Your task to perform on an android device: add a contact in the contacts app Image 0: 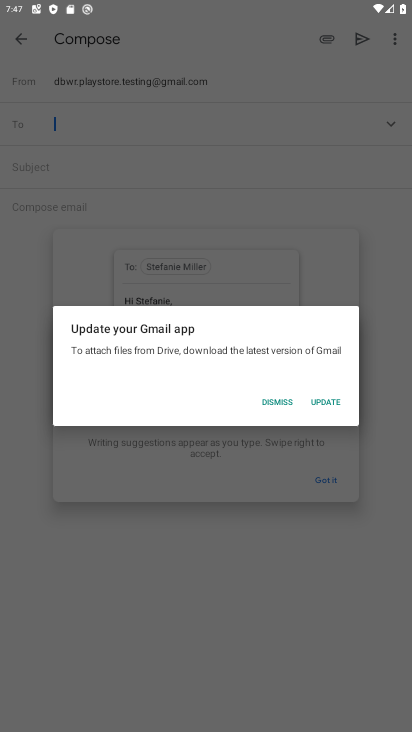
Step 0: press home button
Your task to perform on an android device: add a contact in the contacts app Image 1: 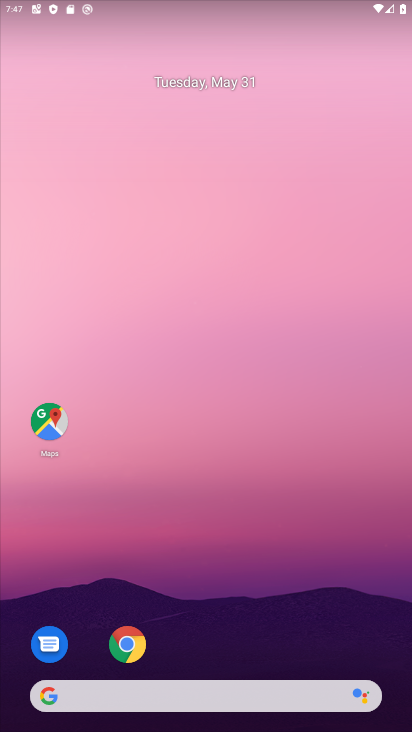
Step 1: drag from (161, 608) to (233, 16)
Your task to perform on an android device: add a contact in the contacts app Image 2: 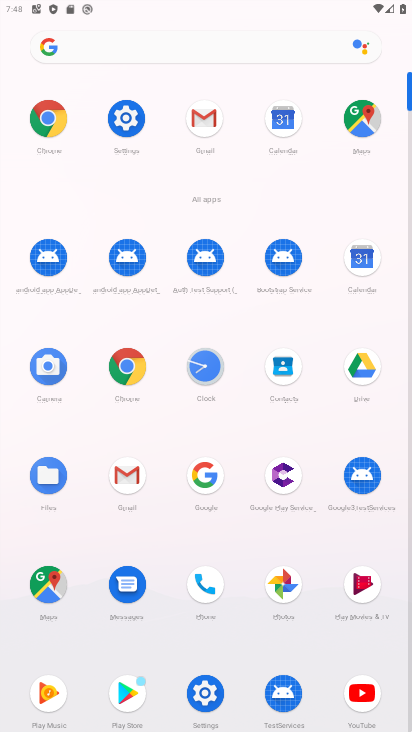
Step 2: click (293, 352)
Your task to perform on an android device: add a contact in the contacts app Image 3: 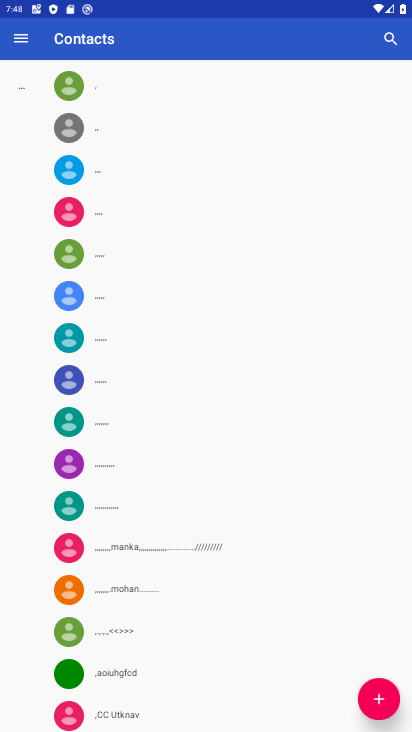
Step 3: click (381, 702)
Your task to perform on an android device: add a contact in the contacts app Image 4: 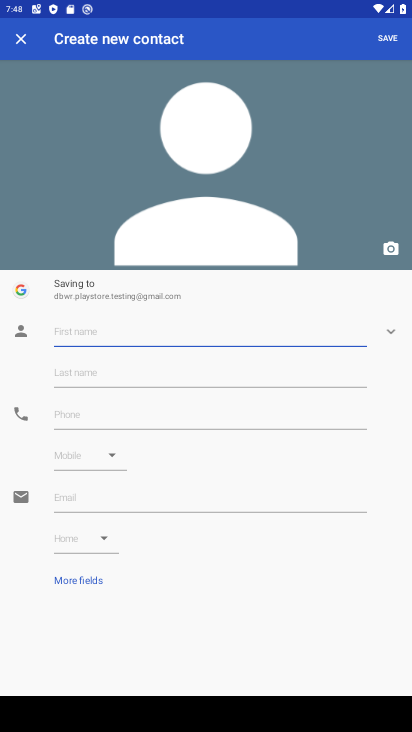
Step 4: type "hjvj"
Your task to perform on an android device: add a contact in the contacts app Image 5: 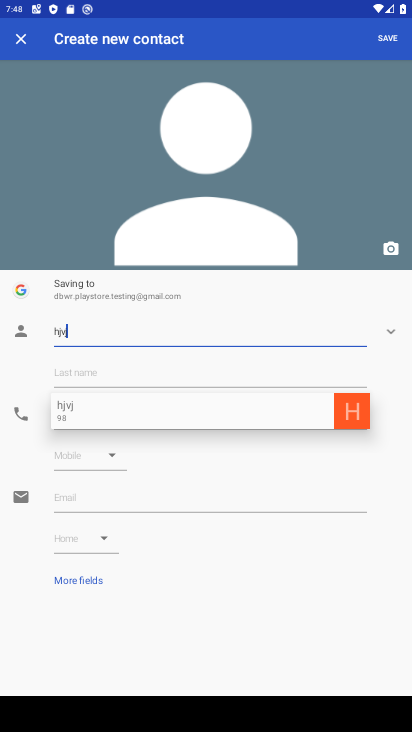
Step 5: click (209, 417)
Your task to perform on an android device: add a contact in the contacts app Image 6: 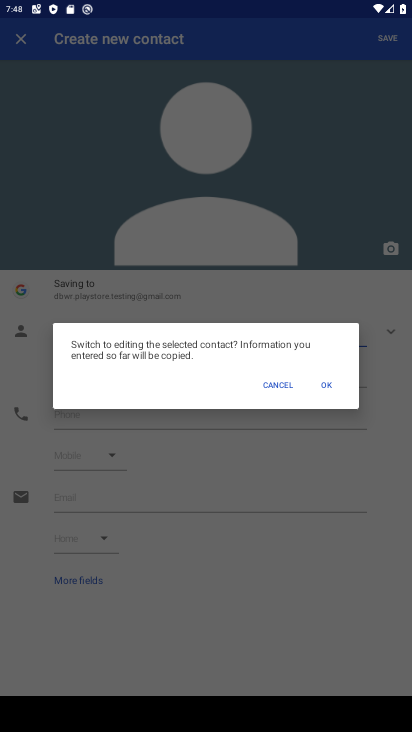
Step 6: click (288, 387)
Your task to perform on an android device: add a contact in the contacts app Image 7: 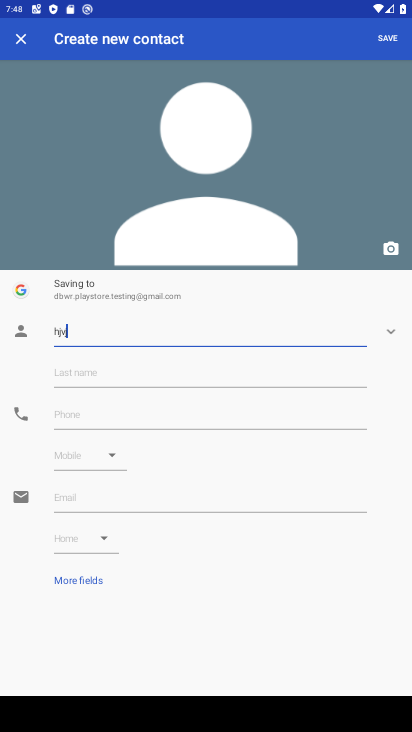
Step 7: click (148, 324)
Your task to perform on an android device: add a contact in the contacts app Image 8: 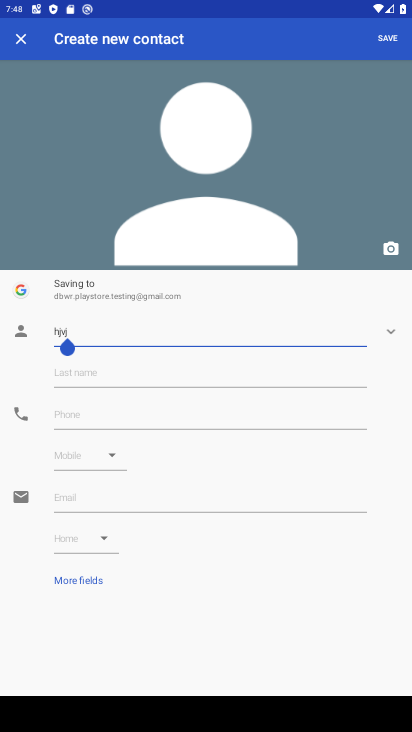
Step 8: type "jhfjh"
Your task to perform on an android device: add a contact in the contacts app Image 9: 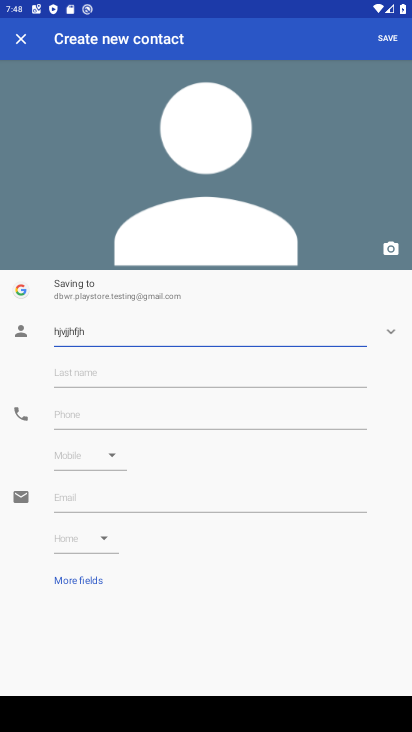
Step 9: click (172, 421)
Your task to perform on an android device: add a contact in the contacts app Image 10: 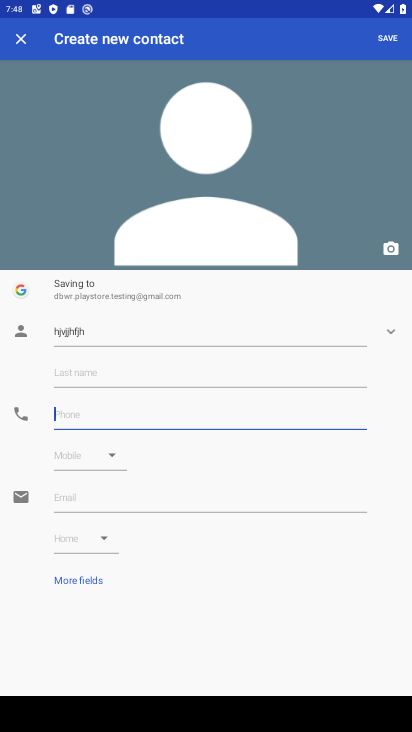
Step 10: click (185, 415)
Your task to perform on an android device: add a contact in the contacts app Image 11: 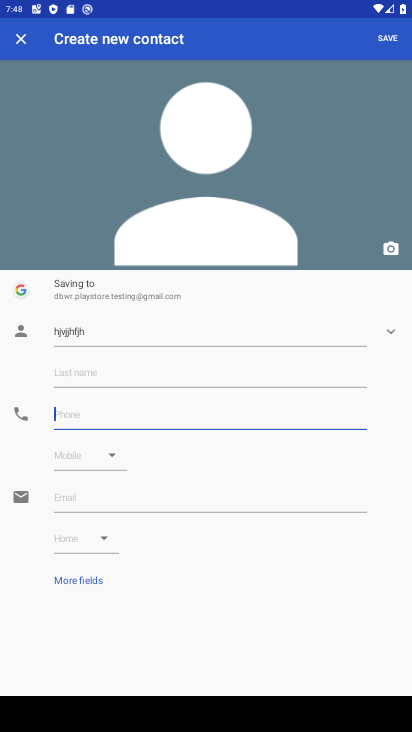
Step 11: click (186, 415)
Your task to perform on an android device: add a contact in the contacts app Image 12: 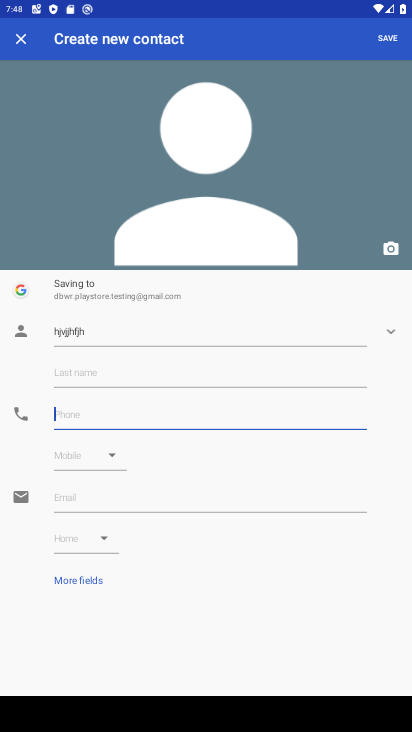
Step 12: type "75587"
Your task to perform on an android device: add a contact in the contacts app Image 13: 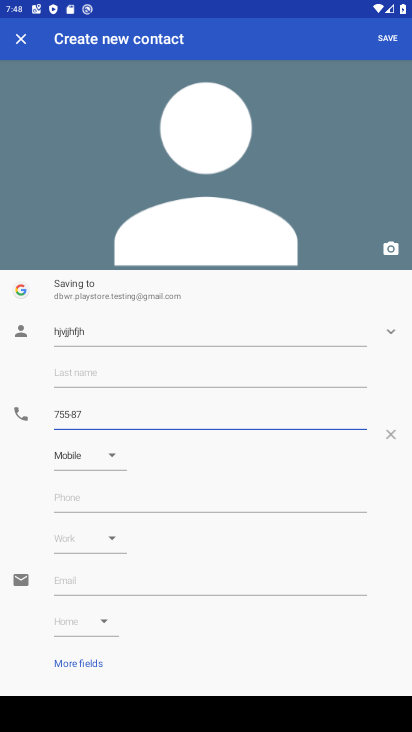
Step 13: click (386, 40)
Your task to perform on an android device: add a contact in the contacts app Image 14: 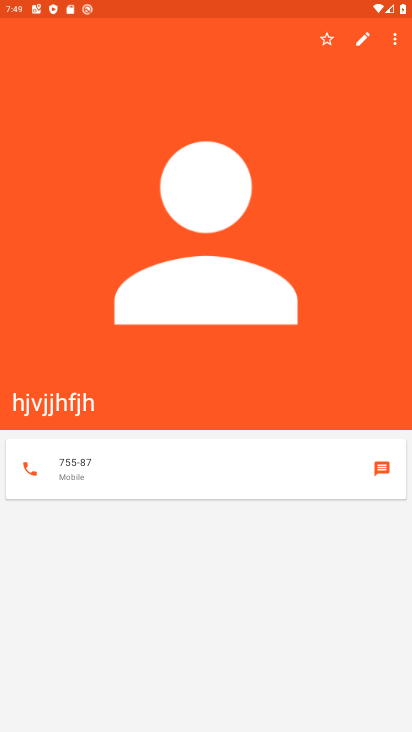
Step 14: task complete